Your task to perform on an android device: Open wifi settings Image 0: 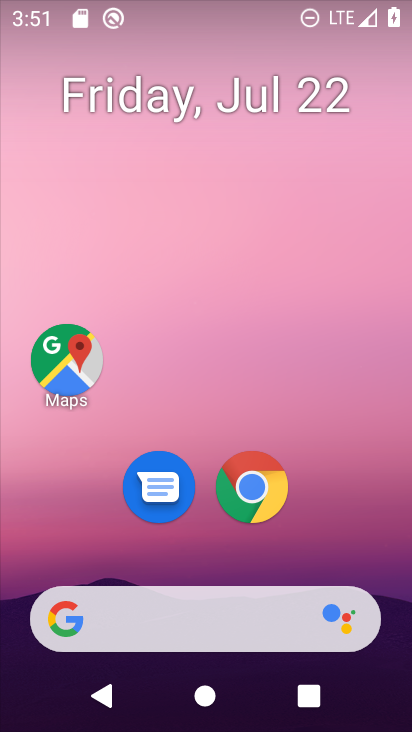
Step 0: drag from (108, 11) to (180, 553)
Your task to perform on an android device: Open wifi settings Image 1: 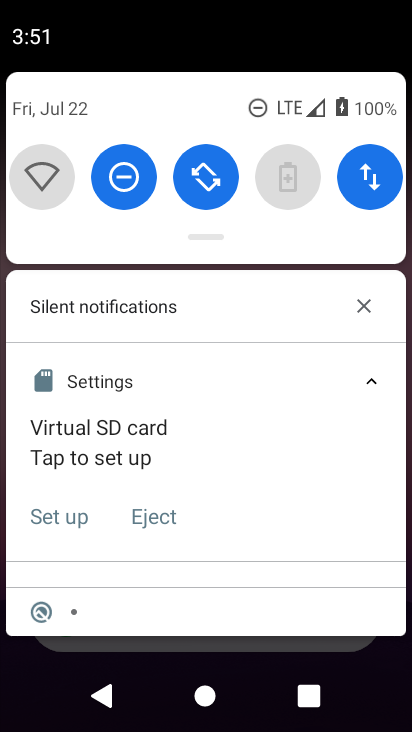
Step 1: click (46, 182)
Your task to perform on an android device: Open wifi settings Image 2: 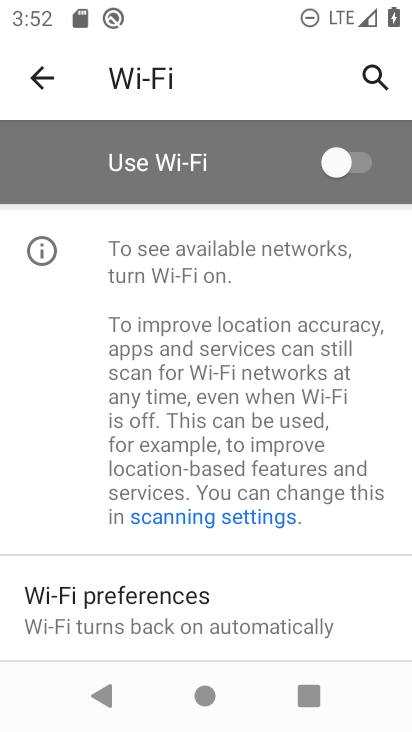
Step 2: task complete